Your task to perform on an android device: turn off javascript in the chrome app Image 0: 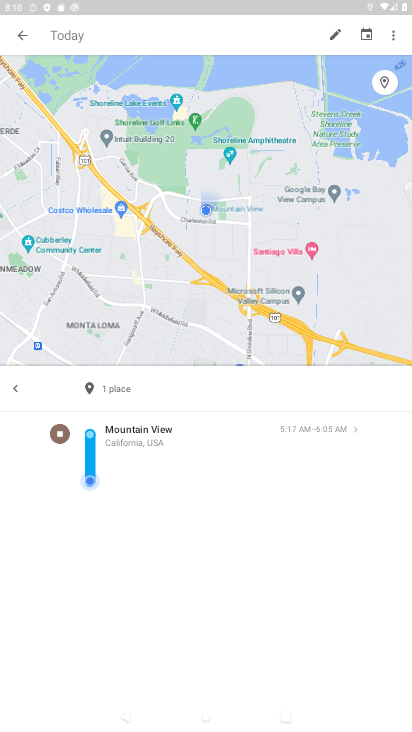
Step 0: press home button
Your task to perform on an android device: turn off javascript in the chrome app Image 1: 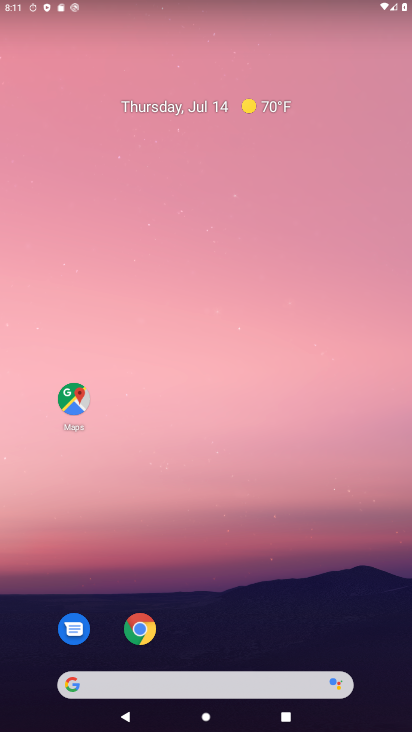
Step 1: drag from (286, 579) to (266, 104)
Your task to perform on an android device: turn off javascript in the chrome app Image 2: 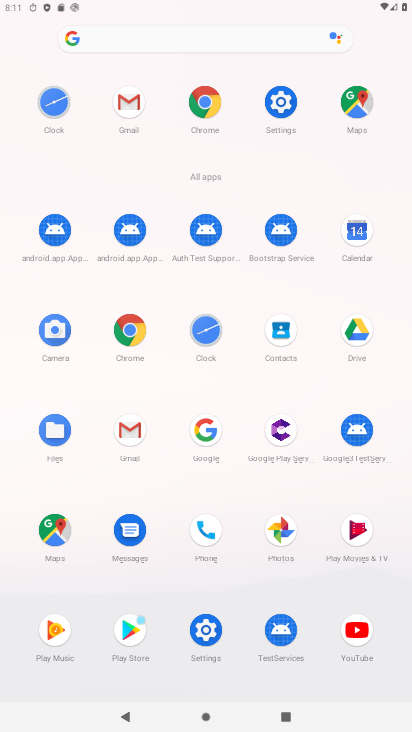
Step 2: click (208, 104)
Your task to perform on an android device: turn off javascript in the chrome app Image 3: 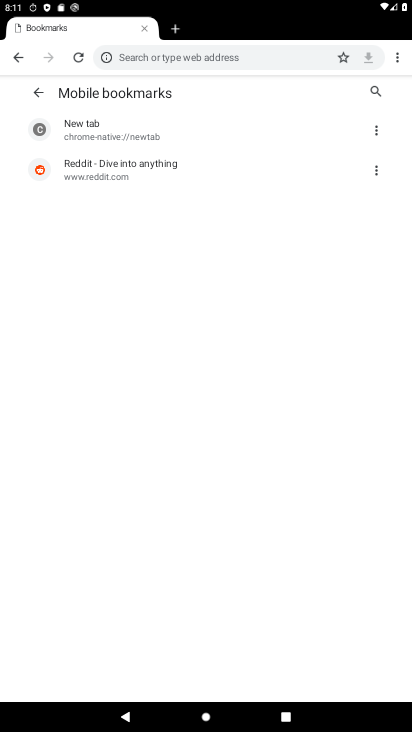
Step 3: drag from (400, 57) to (302, 270)
Your task to perform on an android device: turn off javascript in the chrome app Image 4: 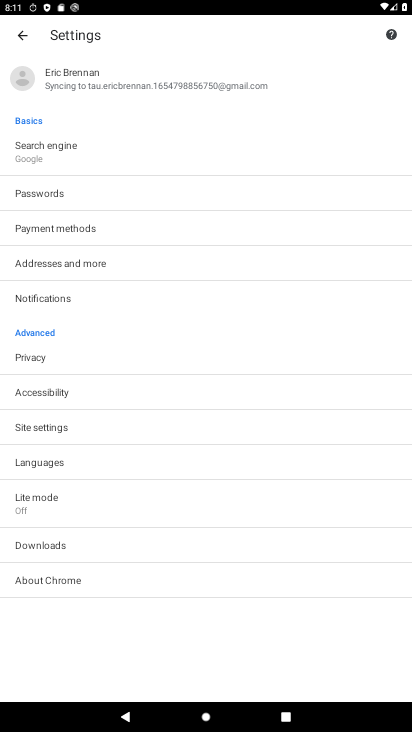
Step 4: click (81, 427)
Your task to perform on an android device: turn off javascript in the chrome app Image 5: 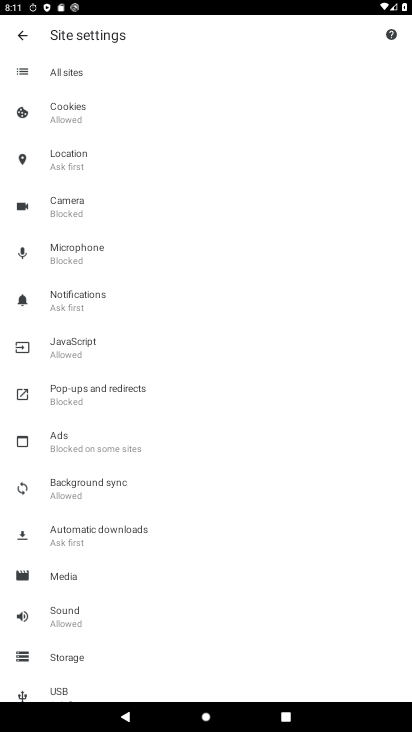
Step 5: click (41, 354)
Your task to perform on an android device: turn off javascript in the chrome app Image 6: 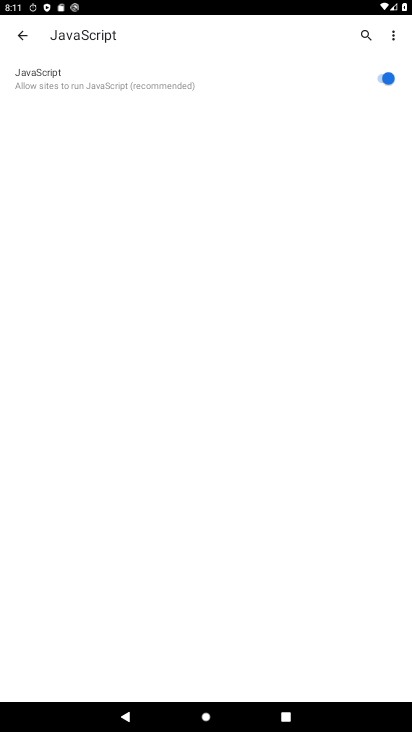
Step 6: click (395, 88)
Your task to perform on an android device: turn off javascript in the chrome app Image 7: 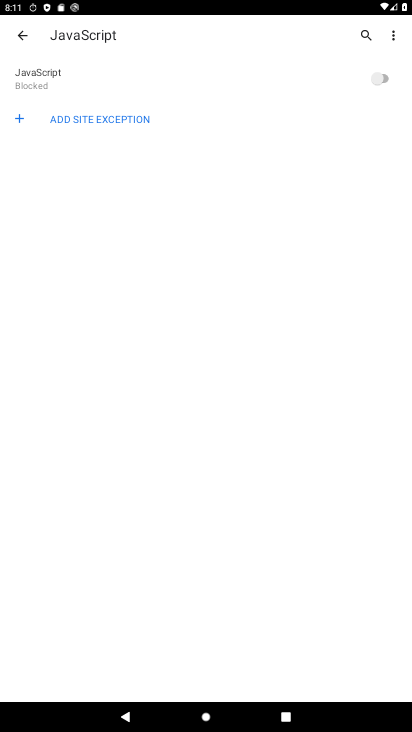
Step 7: task complete